Your task to perform on an android device: Do I have any events this weekend? Image 0: 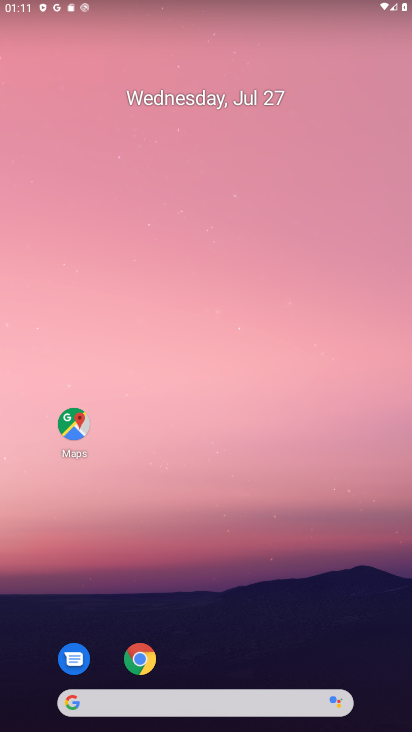
Step 0: drag from (313, 602) to (213, 25)
Your task to perform on an android device: Do I have any events this weekend? Image 1: 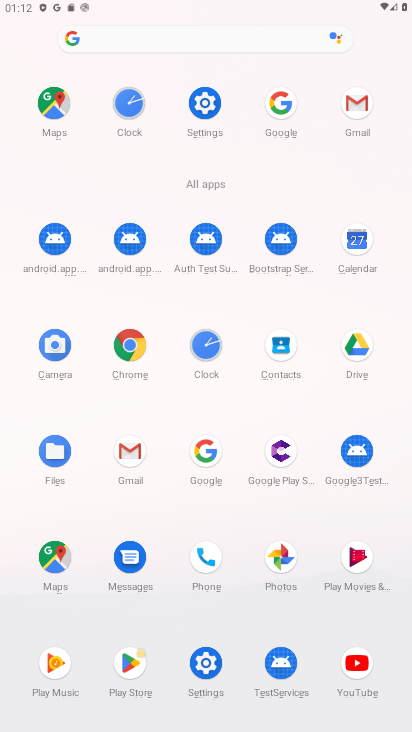
Step 1: click (364, 244)
Your task to perform on an android device: Do I have any events this weekend? Image 2: 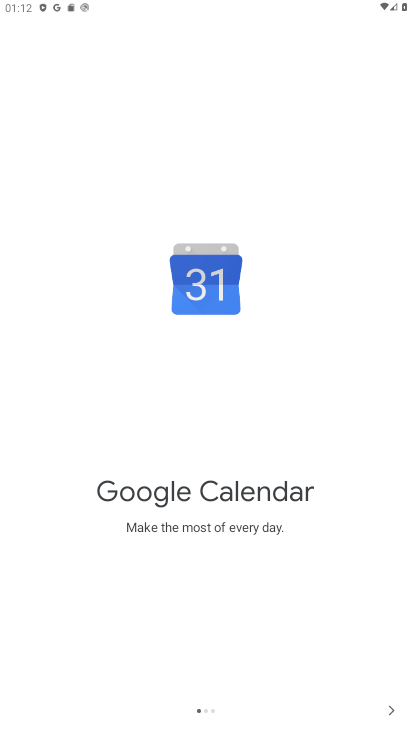
Step 2: click (392, 706)
Your task to perform on an android device: Do I have any events this weekend? Image 3: 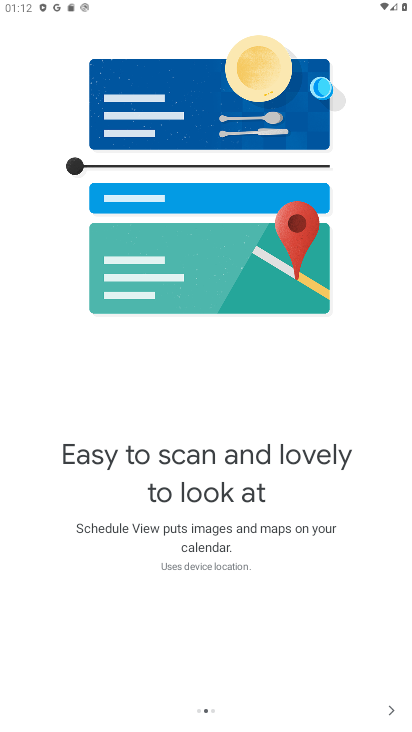
Step 3: click (392, 706)
Your task to perform on an android device: Do I have any events this weekend? Image 4: 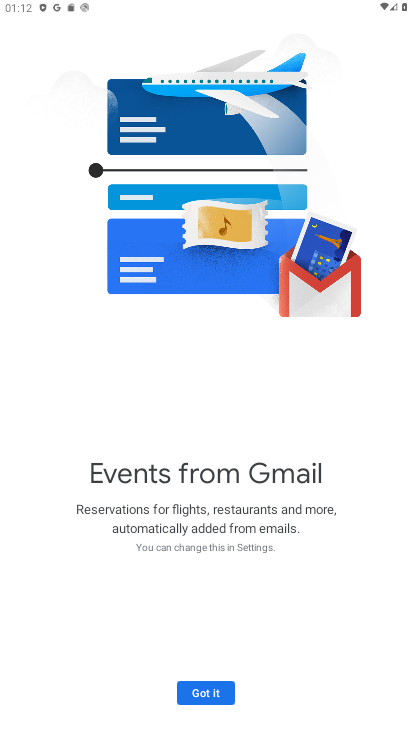
Step 4: click (217, 692)
Your task to perform on an android device: Do I have any events this weekend? Image 5: 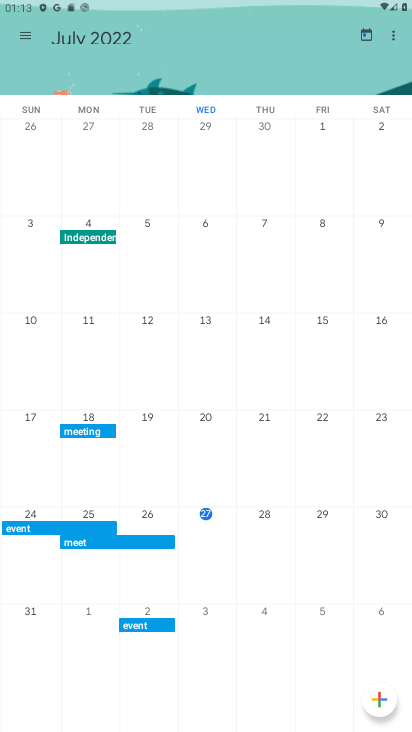
Step 5: click (31, 39)
Your task to perform on an android device: Do I have any events this weekend? Image 6: 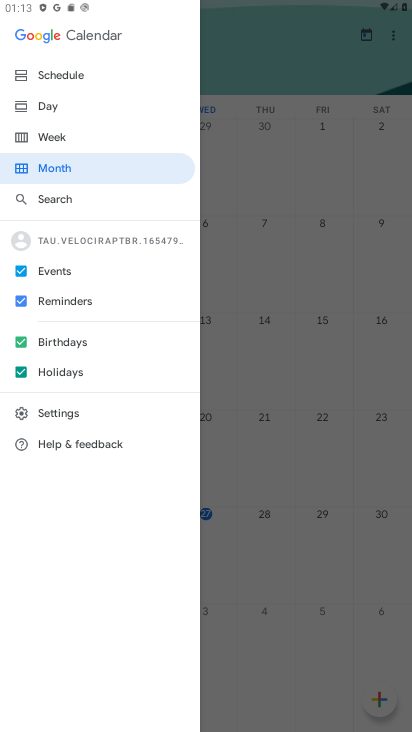
Step 6: click (67, 107)
Your task to perform on an android device: Do I have any events this weekend? Image 7: 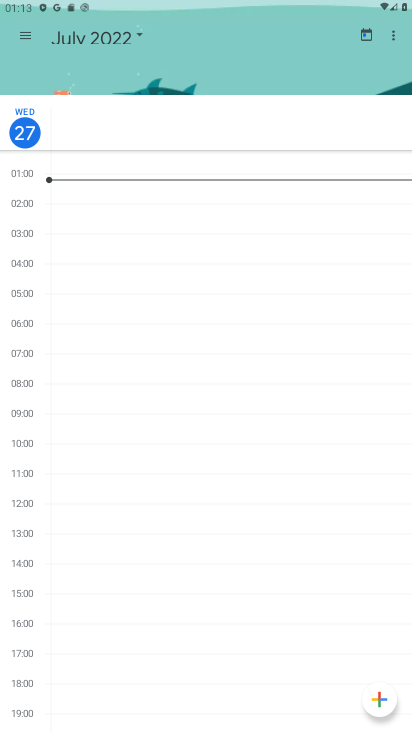
Step 7: click (132, 37)
Your task to perform on an android device: Do I have any events this weekend? Image 8: 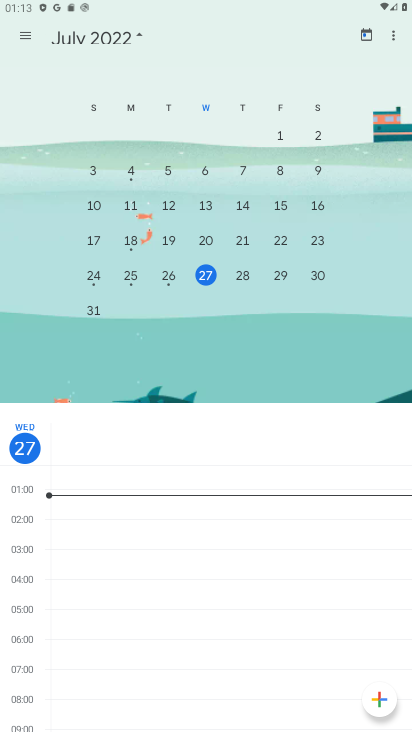
Step 8: click (321, 277)
Your task to perform on an android device: Do I have any events this weekend? Image 9: 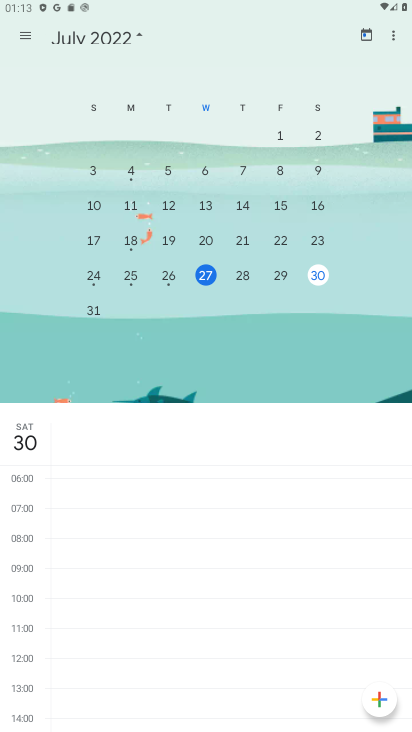
Step 9: task complete